Your task to perform on an android device: toggle data saver in the chrome app Image 0: 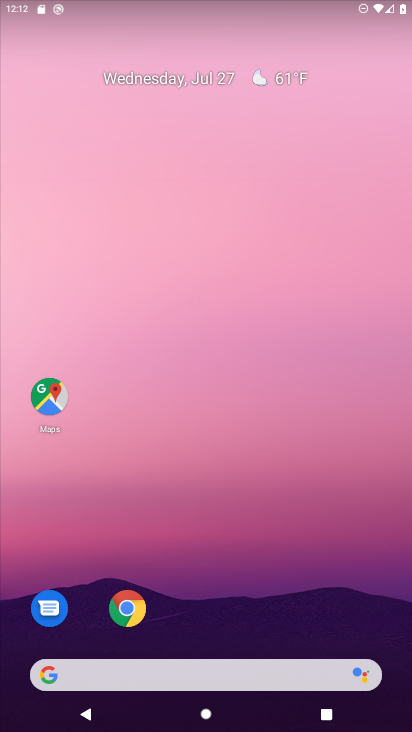
Step 0: press home button
Your task to perform on an android device: toggle data saver in the chrome app Image 1: 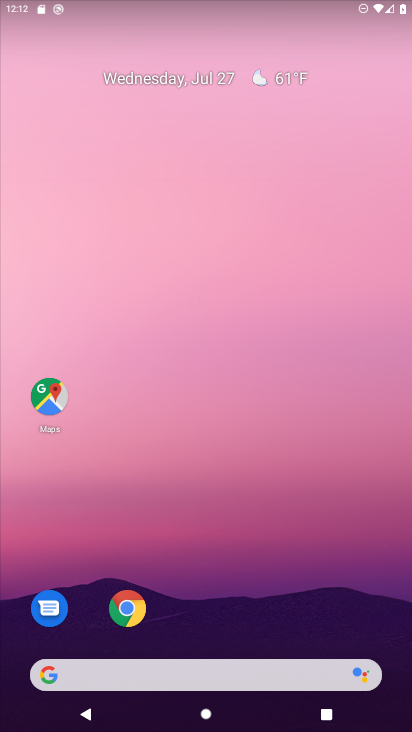
Step 1: drag from (335, 611) to (345, 206)
Your task to perform on an android device: toggle data saver in the chrome app Image 2: 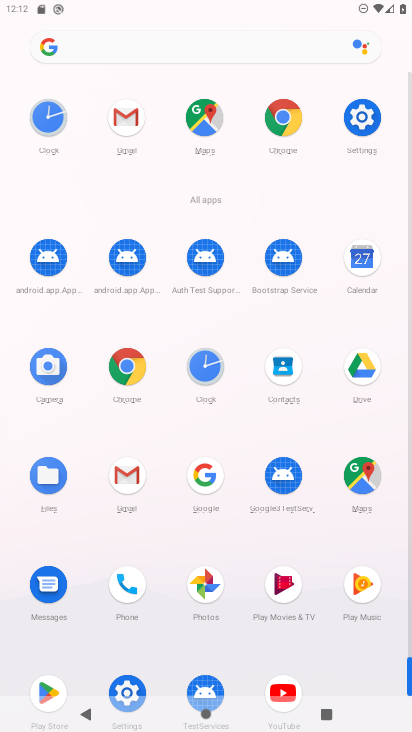
Step 2: click (126, 364)
Your task to perform on an android device: toggle data saver in the chrome app Image 3: 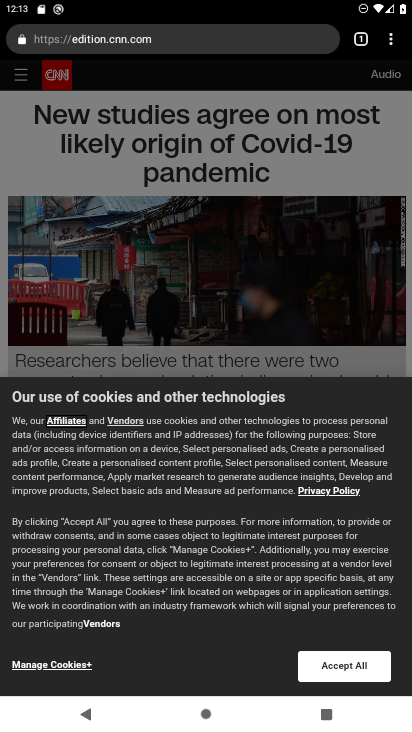
Step 3: click (391, 42)
Your task to perform on an android device: toggle data saver in the chrome app Image 4: 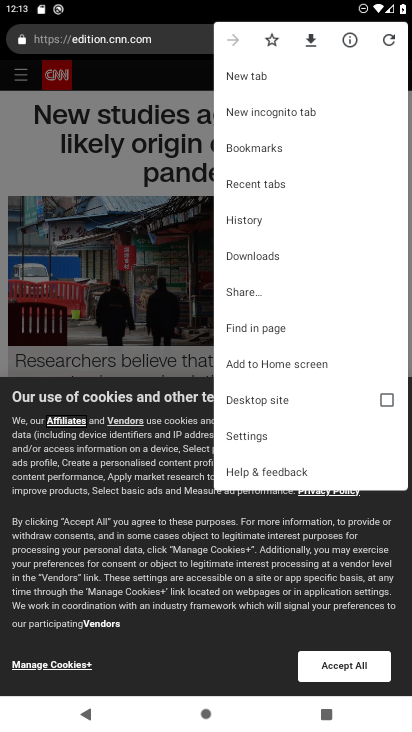
Step 4: click (307, 431)
Your task to perform on an android device: toggle data saver in the chrome app Image 5: 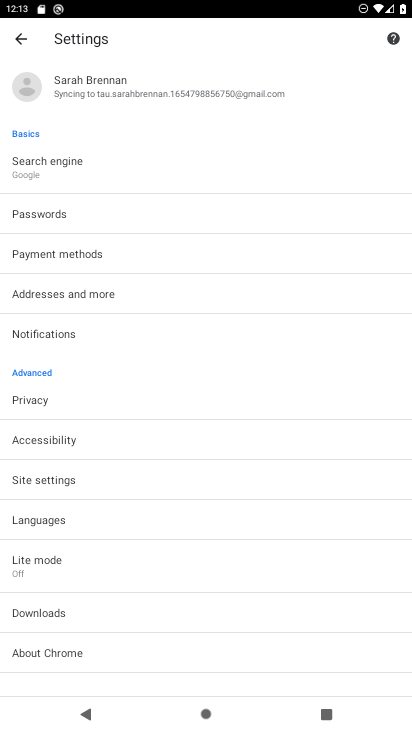
Step 5: drag from (292, 521) to (292, 487)
Your task to perform on an android device: toggle data saver in the chrome app Image 6: 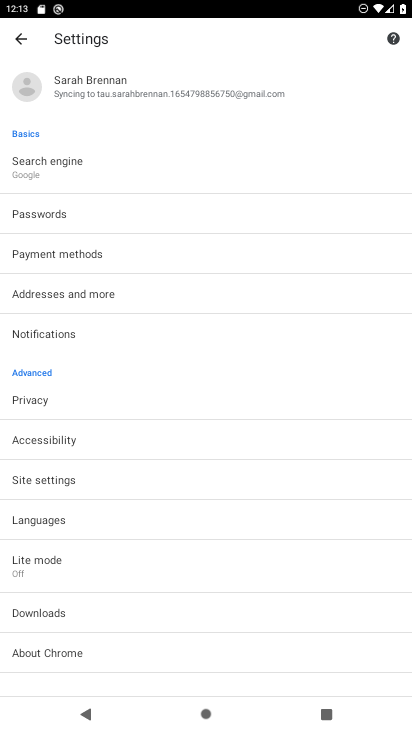
Step 6: click (278, 555)
Your task to perform on an android device: toggle data saver in the chrome app Image 7: 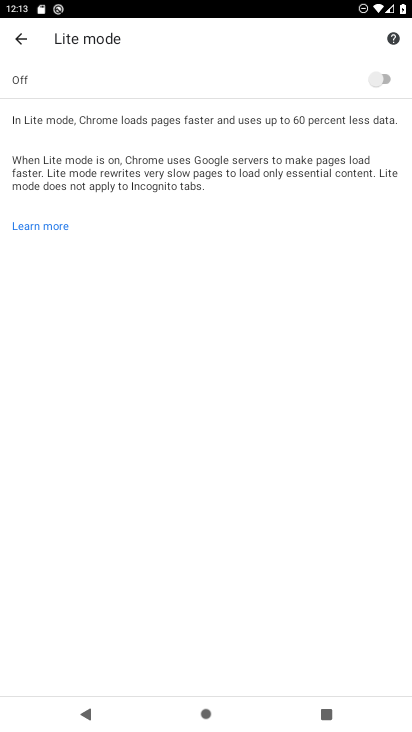
Step 7: click (368, 81)
Your task to perform on an android device: toggle data saver in the chrome app Image 8: 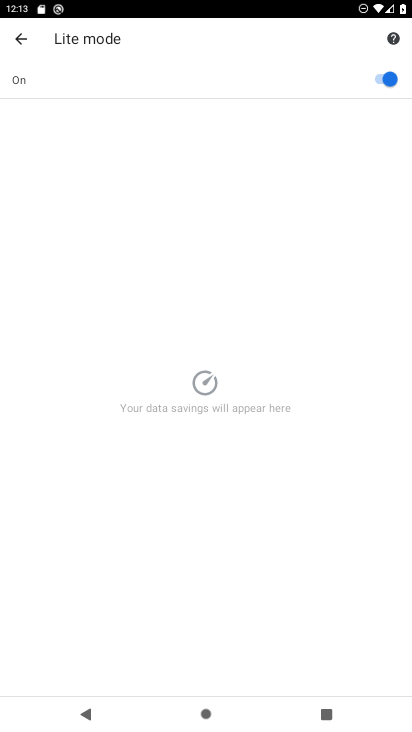
Step 8: task complete